Your task to perform on an android device: move an email to a new category in the gmail app Image 0: 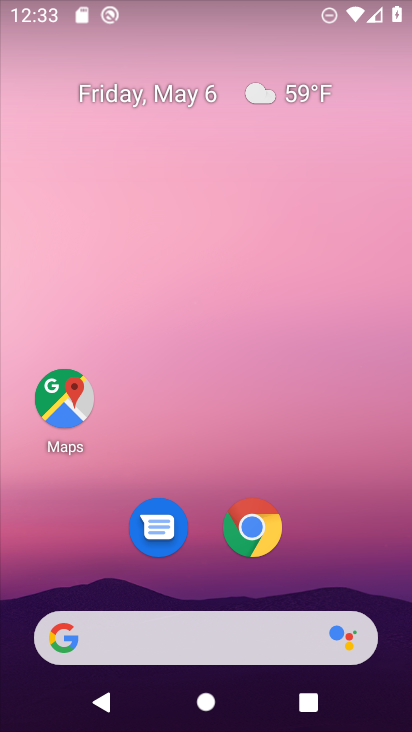
Step 0: drag from (207, 487) to (176, 81)
Your task to perform on an android device: move an email to a new category in the gmail app Image 1: 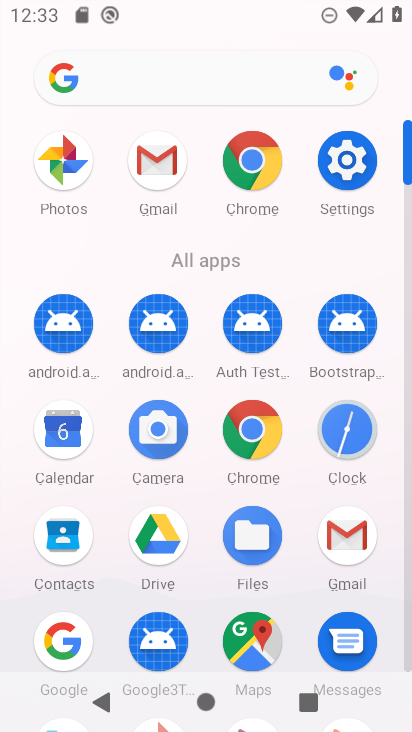
Step 1: click (154, 160)
Your task to perform on an android device: move an email to a new category in the gmail app Image 2: 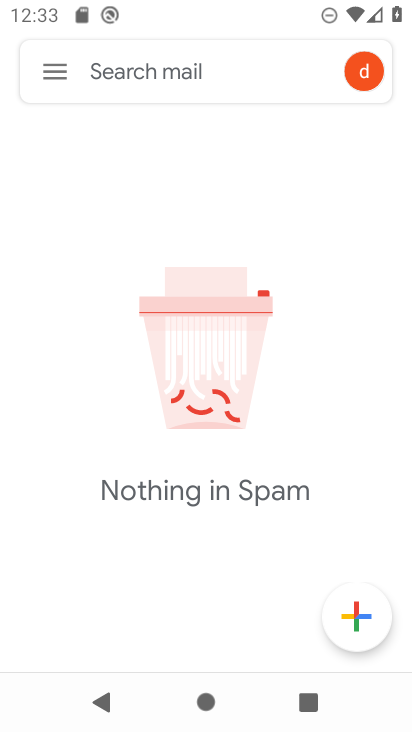
Step 2: click (45, 75)
Your task to perform on an android device: move an email to a new category in the gmail app Image 3: 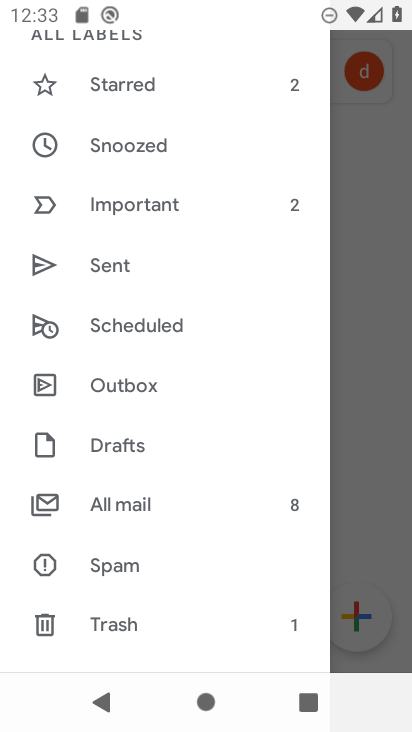
Step 3: drag from (111, 137) to (141, 203)
Your task to perform on an android device: move an email to a new category in the gmail app Image 4: 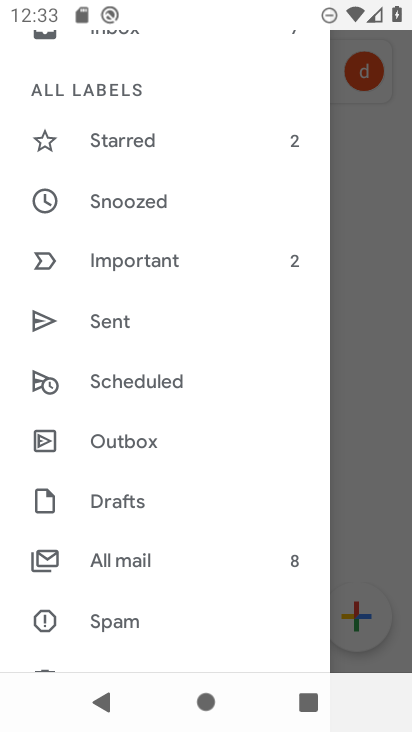
Step 4: click (122, 560)
Your task to perform on an android device: move an email to a new category in the gmail app Image 5: 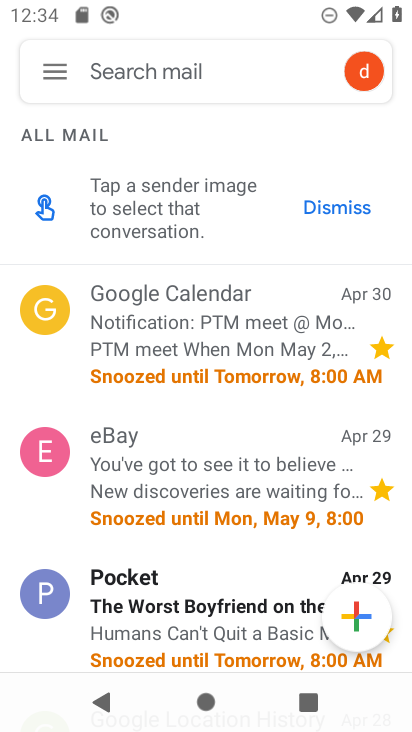
Step 5: click (176, 299)
Your task to perform on an android device: move an email to a new category in the gmail app Image 6: 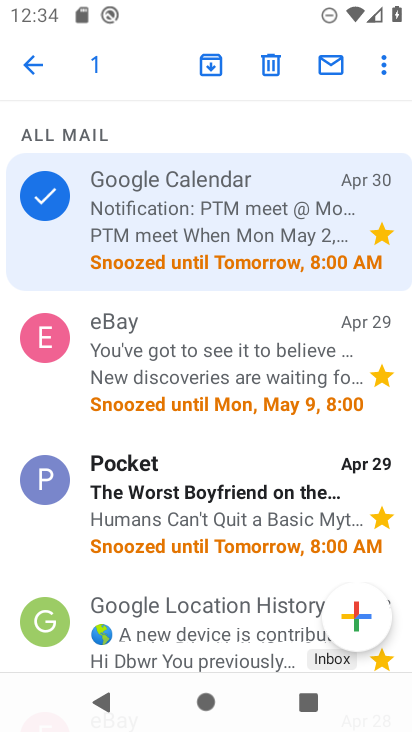
Step 6: click (383, 60)
Your task to perform on an android device: move an email to a new category in the gmail app Image 7: 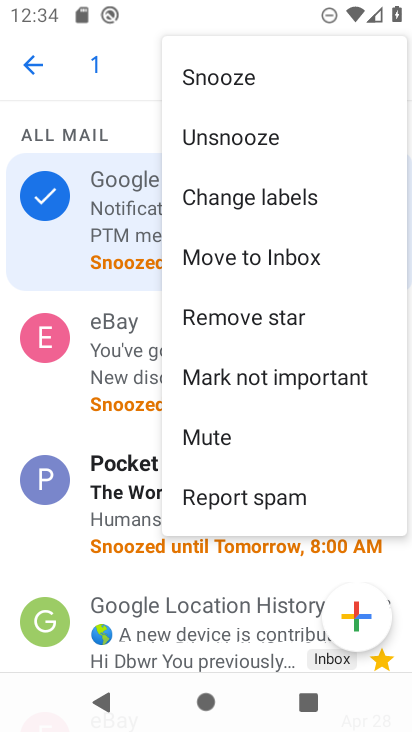
Step 7: click (303, 258)
Your task to perform on an android device: move an email to a new category in the gmail app Image 8: 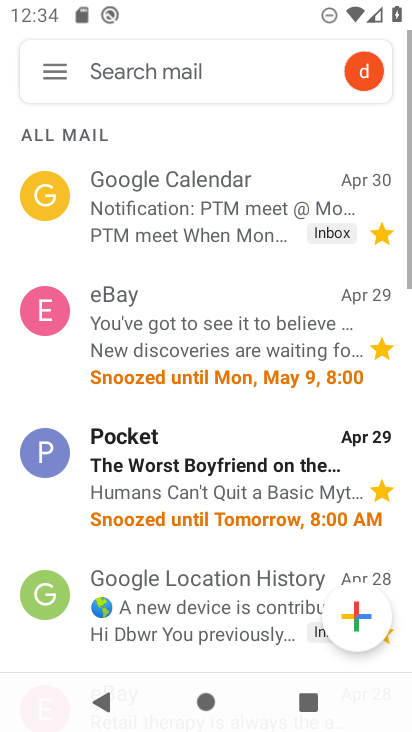
Step 8: task complete